Your task to perform on an android device: turn on the 24-hour format for clock Image 0: 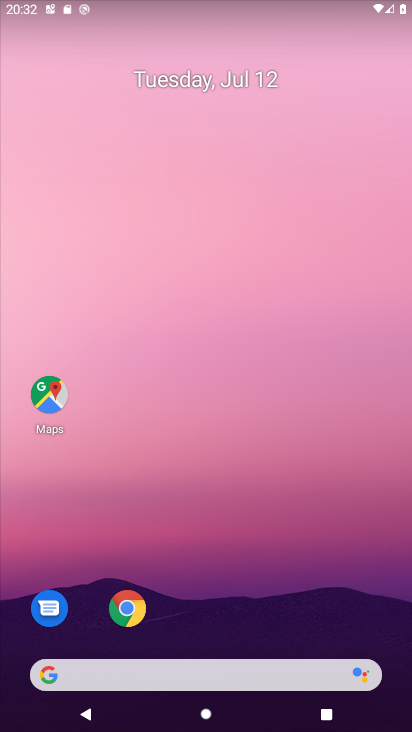
Step 0: drag from (226, 669) to (343, 163)
Your task to perform on an android device: turn on the 24-hour format for clock Image 1: 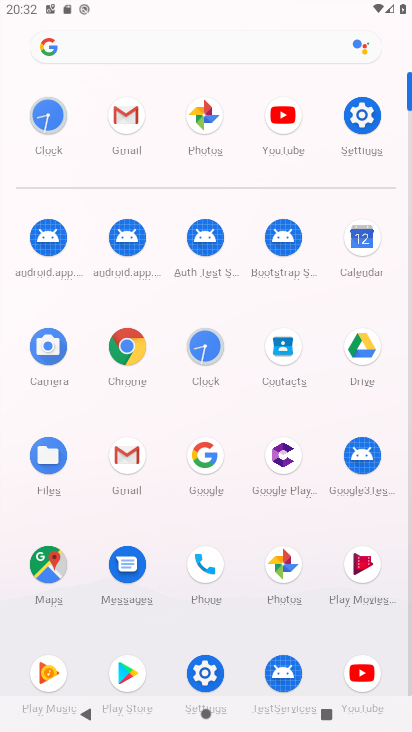
Step 1: click (201, 349)
Your task to perform on an android device: turn on the 24-hour format for clock Image 2: 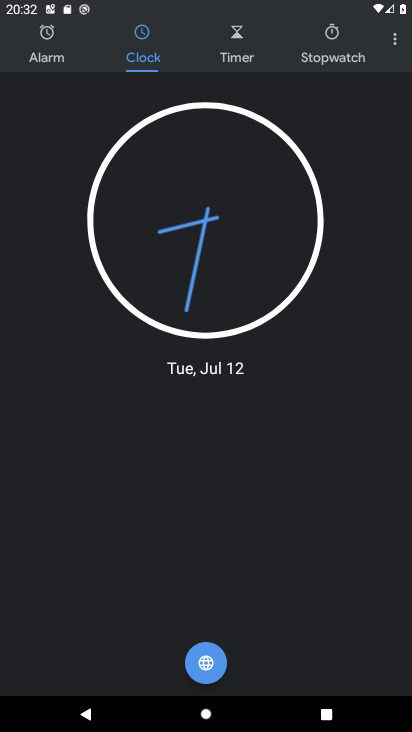
Step 2: click (399, 43)
Your task to perform on an android device: turn on the 24-hour format for clock Image 3: 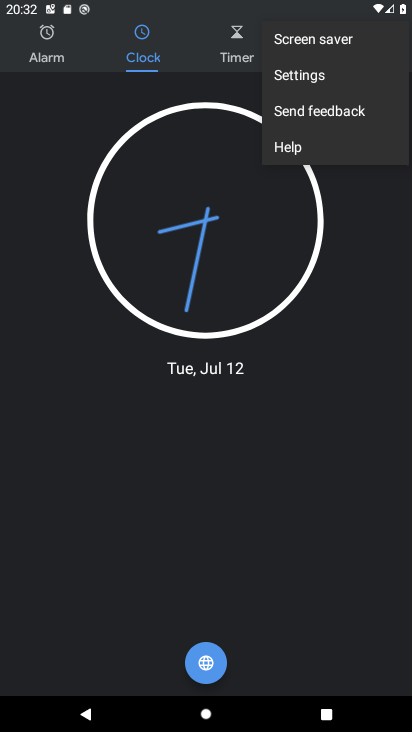
Step 3: click (315, 76)
Your task to perform on an android device: turn on the 24-hour format for clock Image 4: 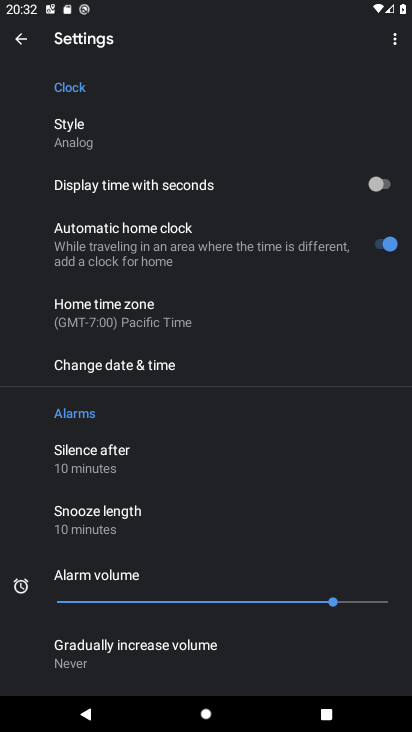
Step 4: click (134, 366)
Your task to perform on an android device: turn on the 24-hour format for clock Image 5: 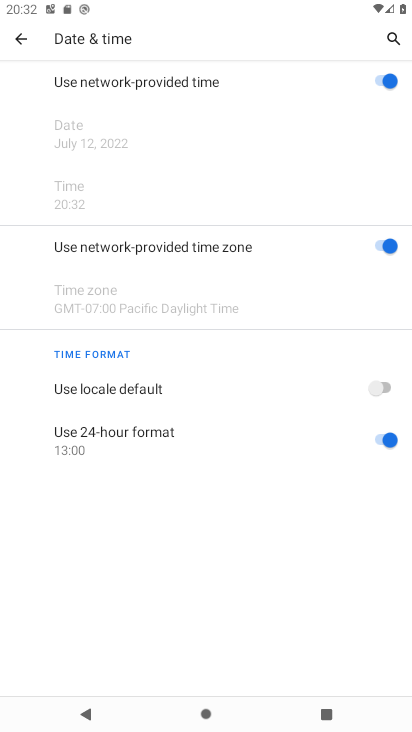
Step 5: task complete